Your task to perform on an android device: change notification settings in the gmail app Image 0: 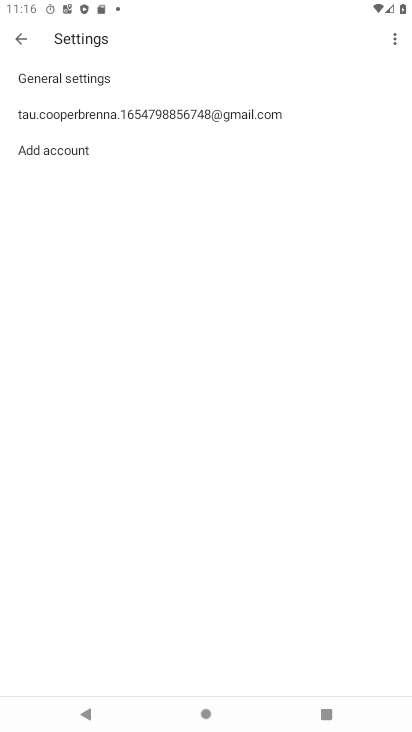
Step 0: press home button
Your task to perform on an android device: change notification settings in the gmail app Image 1: 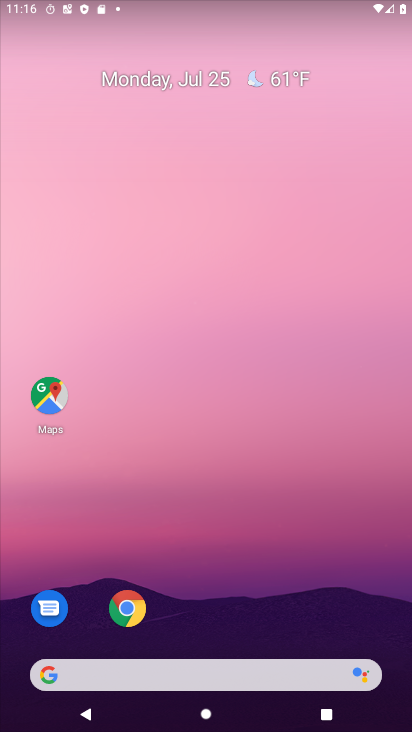
Step 1: drag from (252, 530) to (230, 6)
Your task to perform on an android device: change notification settings in the gmail app Image 2: 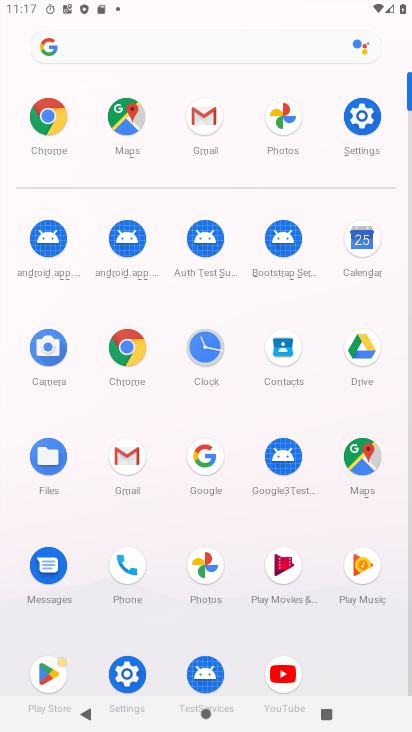
Step 2: click (192, 111)
Your task to perform on an android device: change notification settings in the gmail app Image 3: 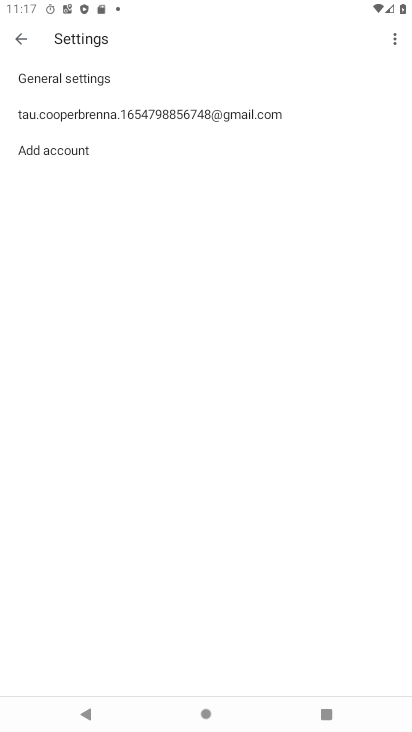
Step 3: click (23, 46)
Your task to perform on an android device: change notification settings in the gmail app Image 4: 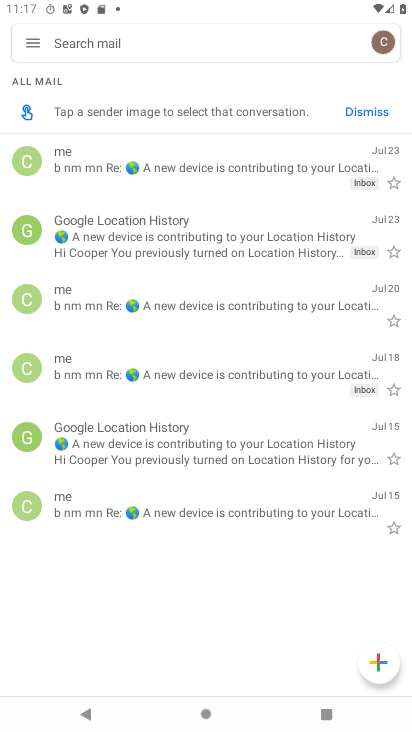
Step 4: click (20, 48)
Your task to perform on an android device: change notification settings in the gmail app Image 5: 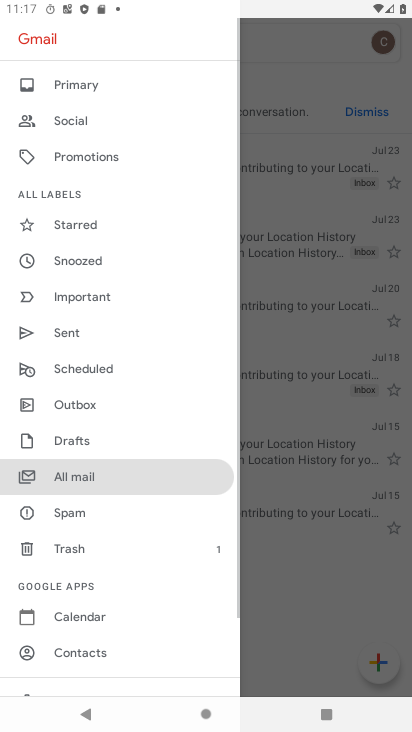
Step 5: drag from (64, 621) to (103, 1)
Your task to perform on an android device: change notification settings in the gmail app Image 6: 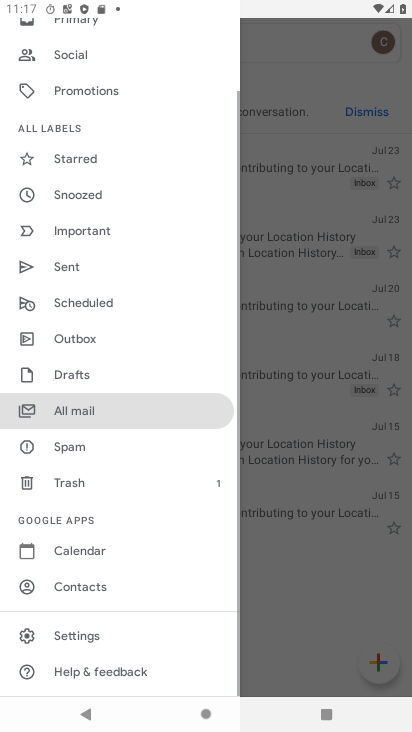
Step 6: click (77, 635)
Your task to perform on an android device: change notification settings in the gmail app Image 7: 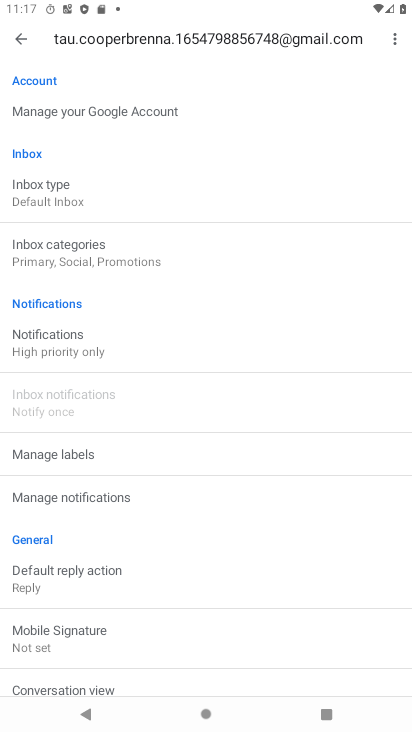
Step 7: click (42, 352)
Your task to perform on an android device: change notification settings in the gmail app Image 8: 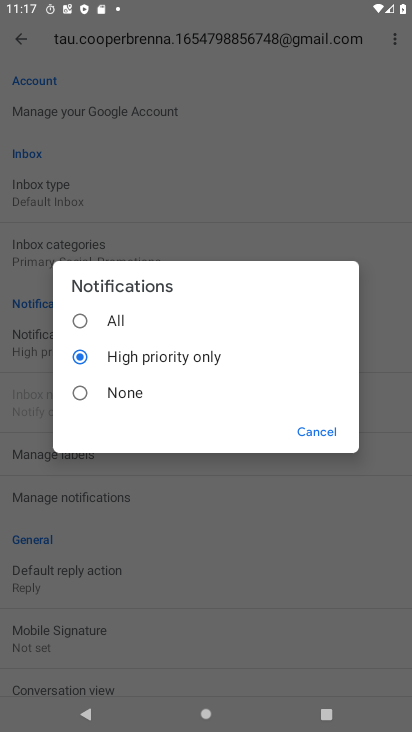
Step 8: click (80, 316)
Your task to perform on an android device: change notification settings in the gmail app Image 9: 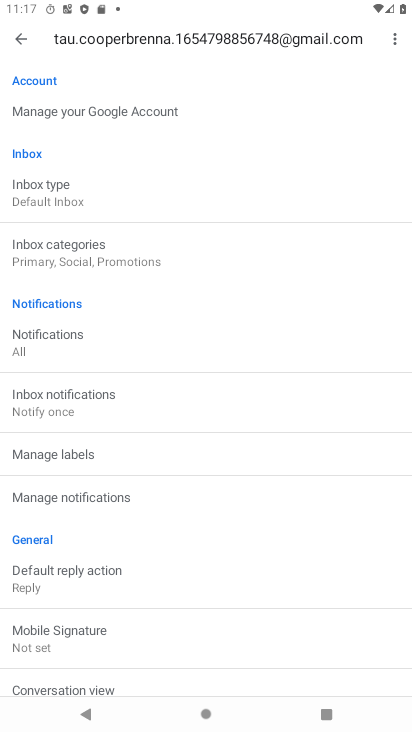
Step 9: task complete